Your task to perform on an android device: turn on the 24-hour format for clock Image 0: 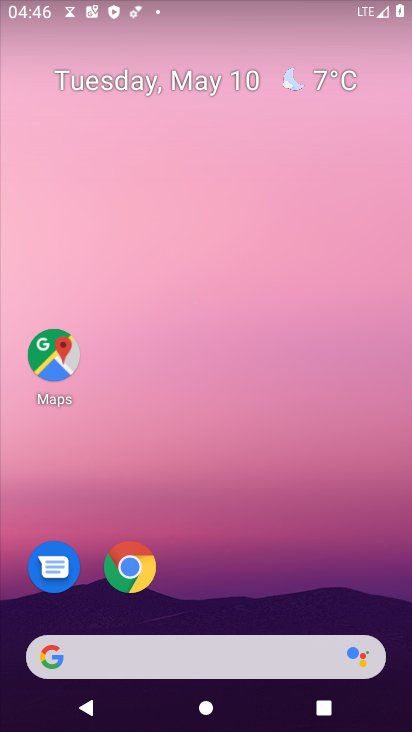
Step 0: drag from (254, 584) to (157, 183)
Your task to perform on an android device: turn on the 24-hour format for clock Image 1: 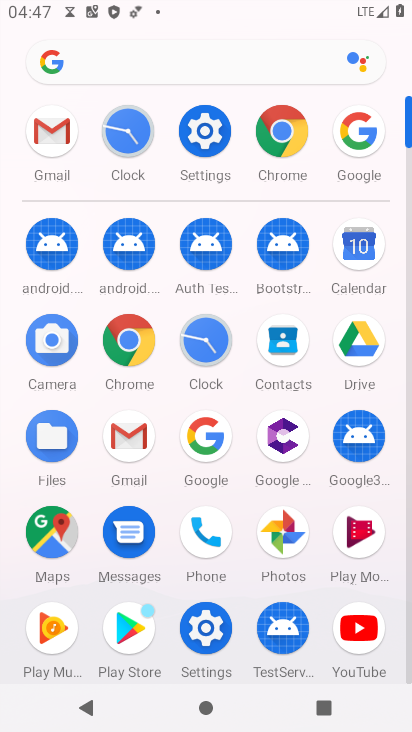
Step 1: click (127, 130)
Your task to perform on an android device: turn on the 24-hour format for clock Image 2: 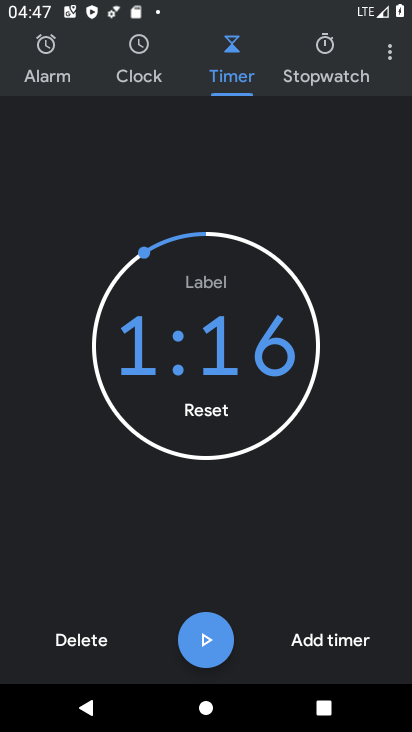
Step 2: click (390, 57)
Your task to perform on an android device: turn on the 24-hour format for clock Image 3: 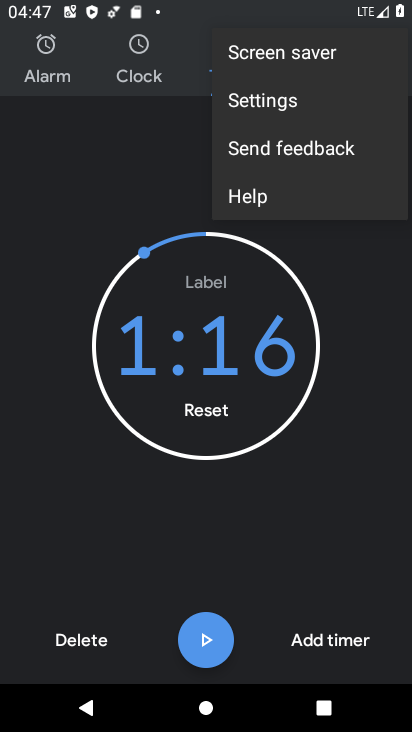
Step 3: click (275, 103)
Your task to perform on an android device: turn on the 24-hour format for clock Image 4: 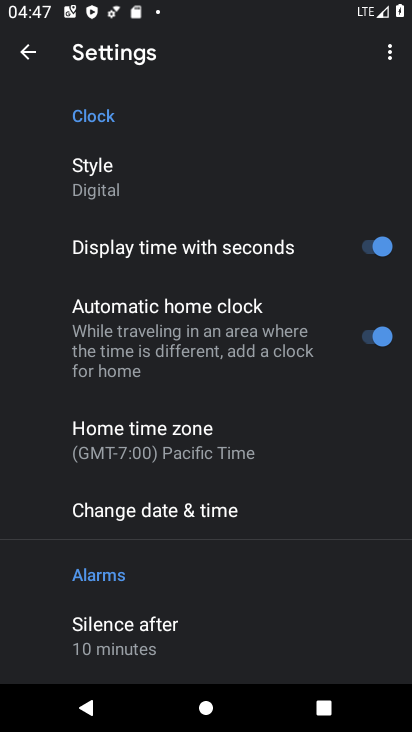
Step 4: click (160, 513)
Your task to perform on an android device: turn on the 24-hour format for clock Image 5: 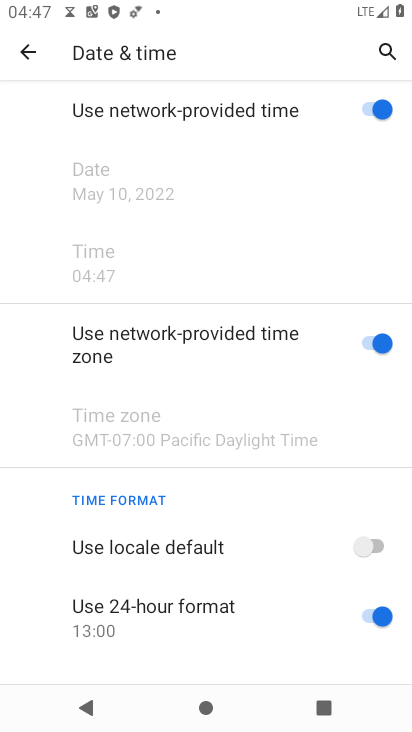
Step 5: task complete